Your task to perform on an android device: Go to ESPN.com Image 0: 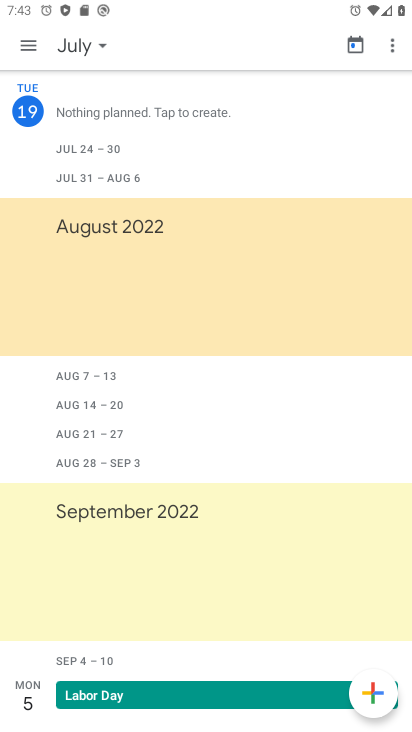
Step 0: press home button
Your task to perform on an android device: Go to ESPN.com Image 1: 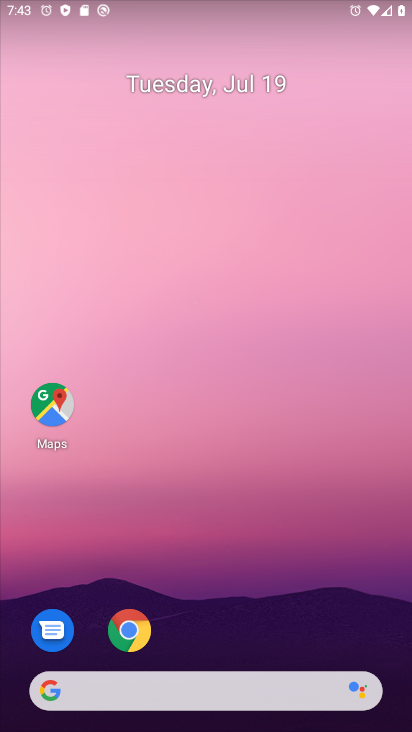
Step 1: click (73, 694)
Your task to perform on an android device: Go to ESPN.com Image 2: 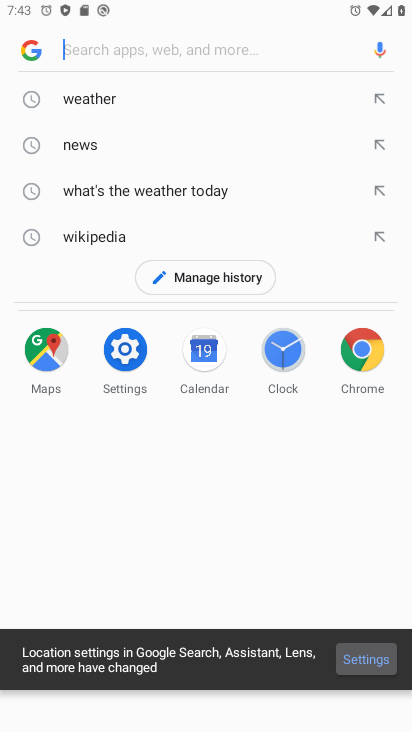
Step 2: click (75, 50)
Your task to perform on an android device: Go to ESPN.com Image 3: 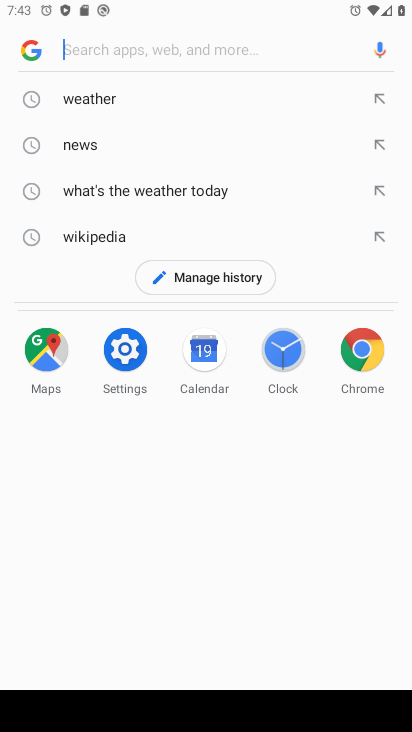
Step 3: type "ESPN.com"
Your task to perform on an android device: Go to ESPN.com Image 4: 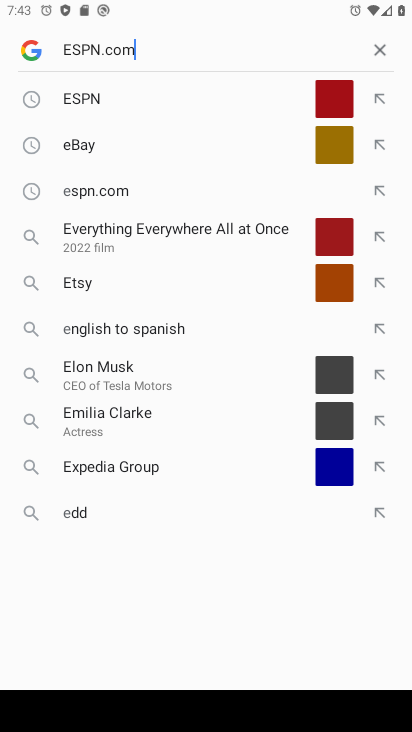
Step 4: type ""
Your task to perform on an android device: Go to ESPN.com Image 5: 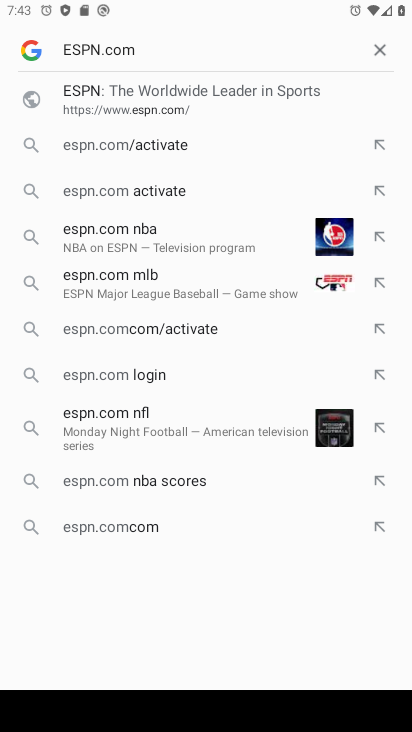
Step 5: press enter
Your task to perform on an android device: Go to ESPN.com Image 6: 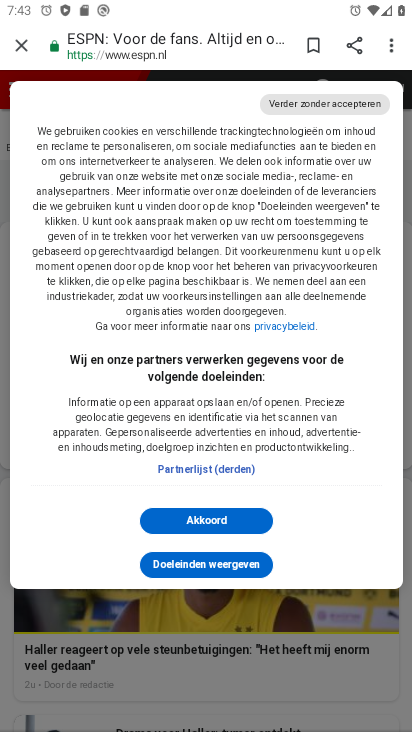
Step 6: task complete